Your task to perform on an android device: remove spam from my inbox in the gmail app Image 0: 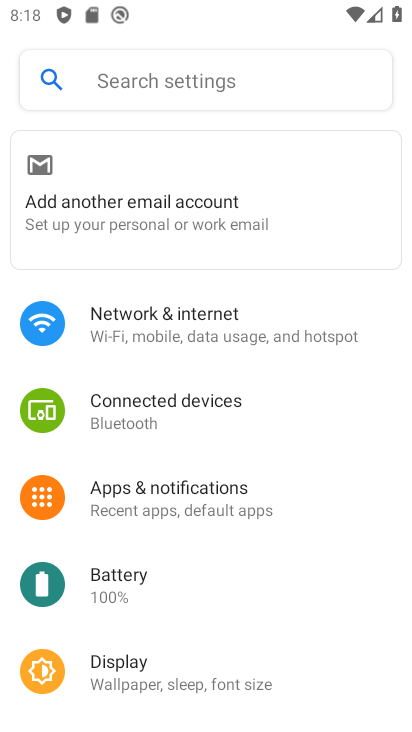
Step 0: press home button
Your task to perform on an android device: remove spam from my inbox in the gmail app Image 1: 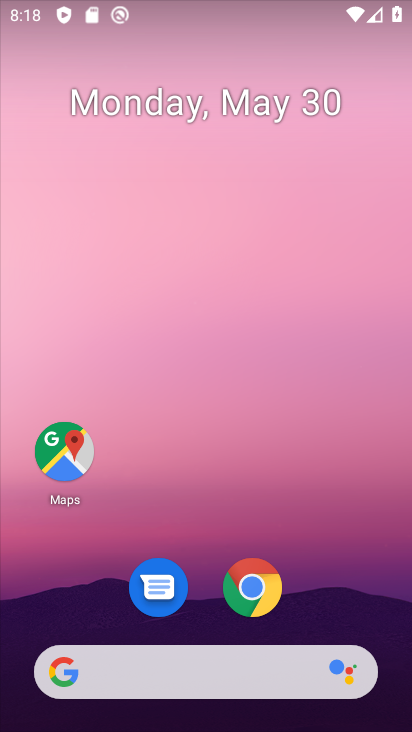
Step 1: drag from (201, 499) to (408, 72)
Your task to perform on an android device: remove spam from my inbox in the gmail app Image 2: 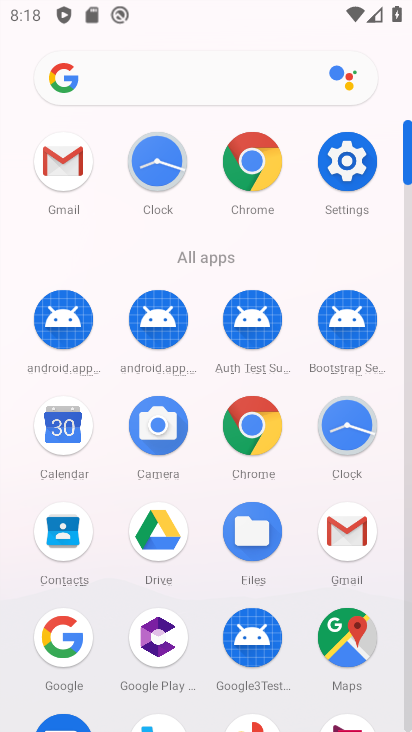
Step 2: click (361, 551)
Your task to perform on an android device: remove spam from my inbox in the gmail app Image 3: 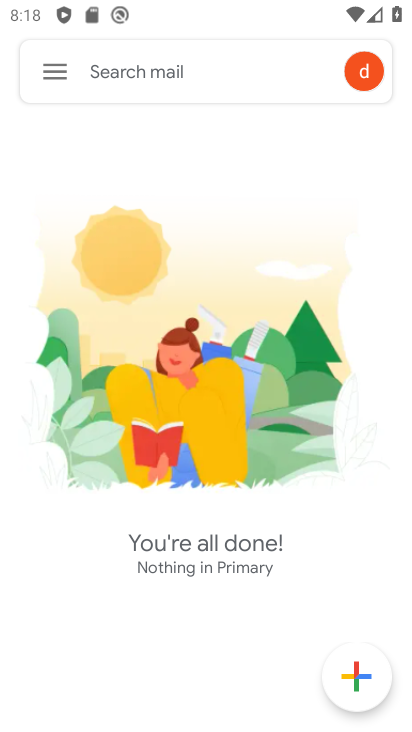
Step 3: click (44, 78)
Your task to perform on an android device: remove spam from my inbox in the gmail app Image 4: 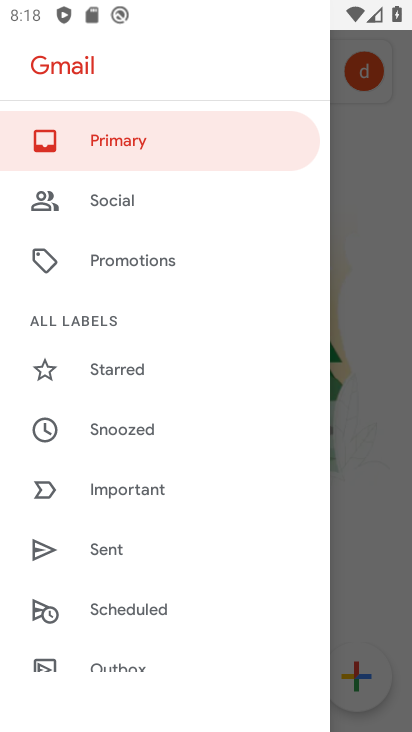
Step 4: drag from (115, 520) to (147, 243)
Your task to perform on an android device: remove spam from my inbox in the gmail app Image 5: 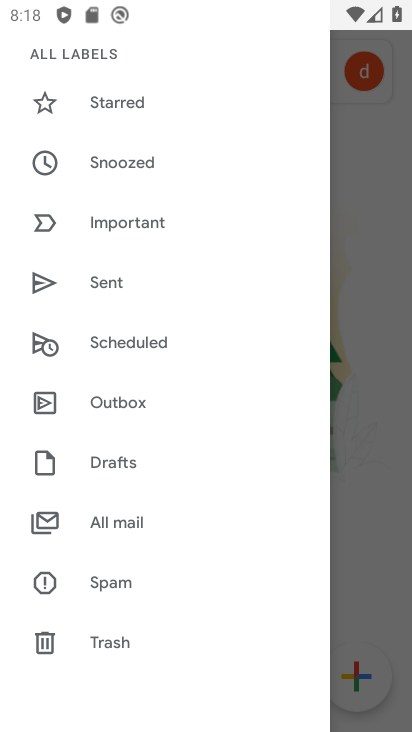
Step 5: click (123, 586)
Your task to perform on an android device: remove spam from my inbox in the gmail app Image 6: 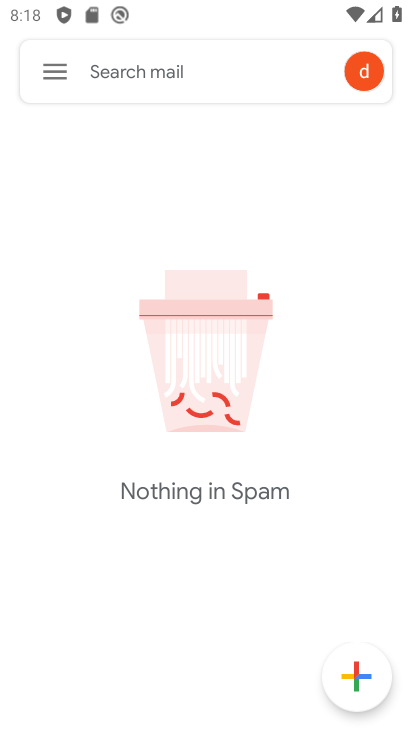
Step 6: task complete